Your task to perform on an android device: Open Wikipedia Image 0: 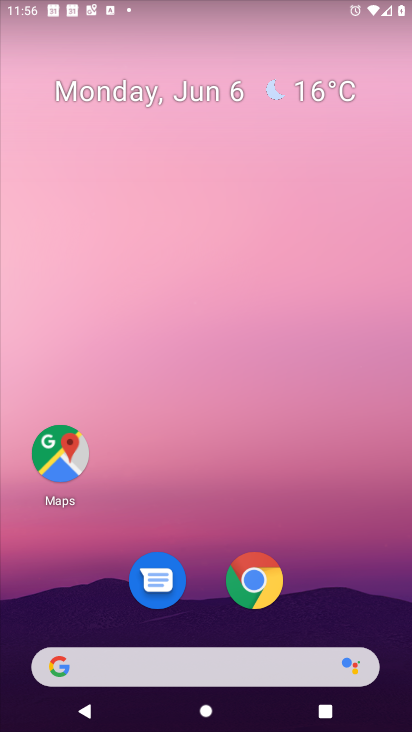
Step 0: drag from (345, 595) to (409, 128)
Your task to perform on an android device: Open Wikipedia Image 1: 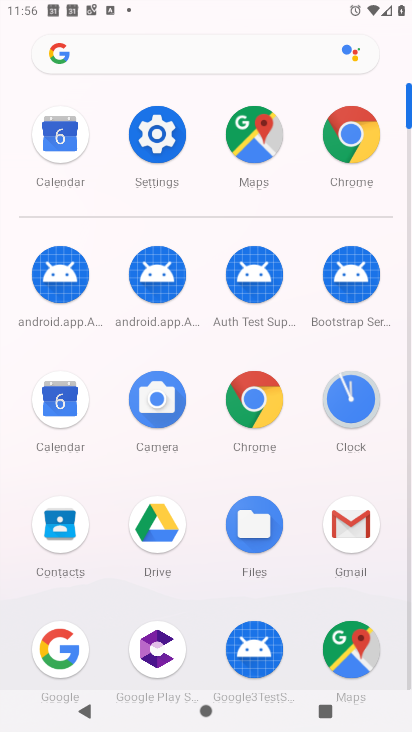
Step 1: click (341, 137)
Your task to perform on an android device: Open Wikipedia Image 2: 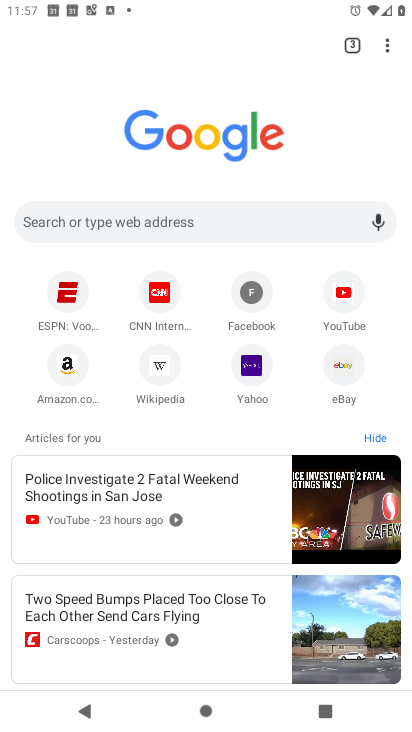
Step 2: click (151, 387)
Your task to perform on an android device: Open Wikipedia Image 3: 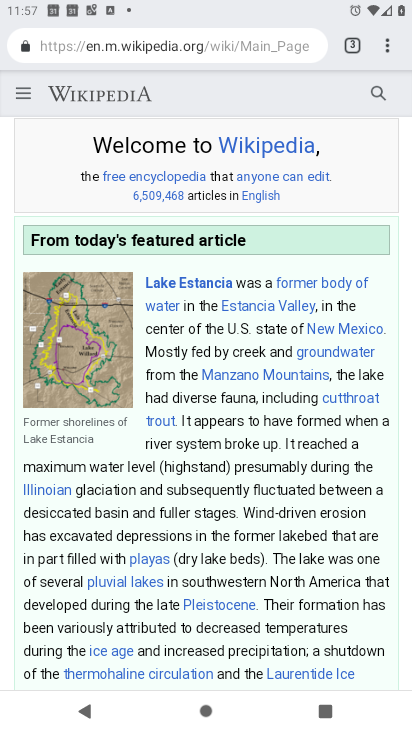
Step 3: task complete